Your task to perform on an android device: set an alarm Image 0: 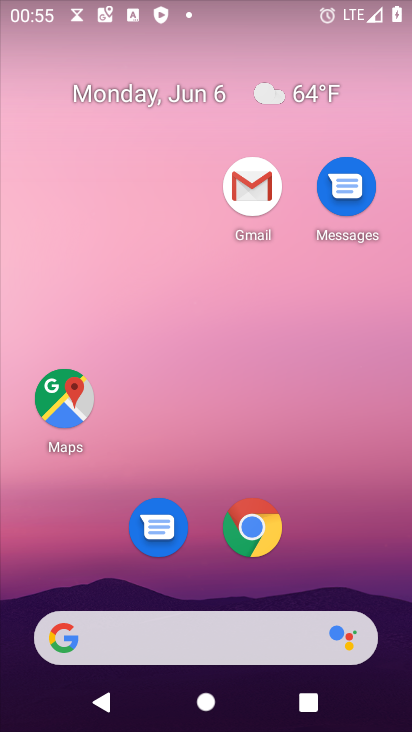
Step 0: drag from (325, 494) to (287, 7)
Your task to perform on an android device: set an alarm Image 1: 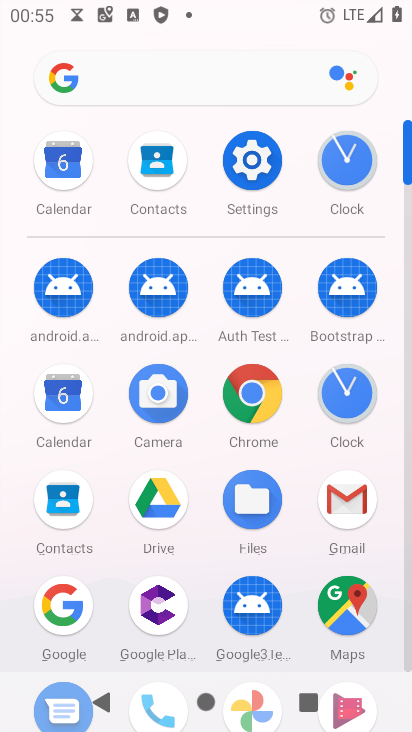
Step 1: click (348, 148)
Your task to perform on an android device: set an alarm Image 2: 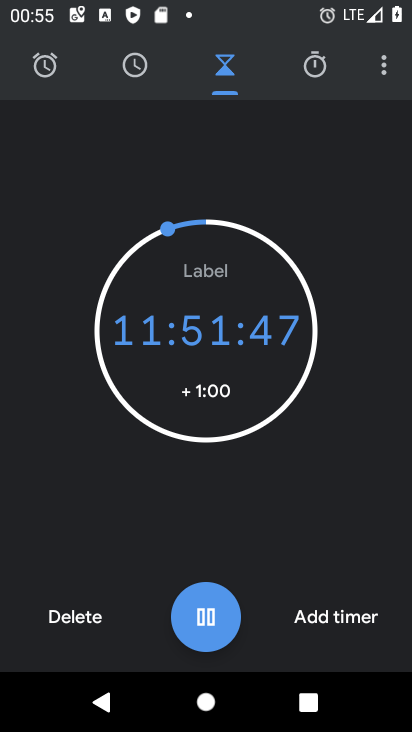
Step 2: click (52, 71)
Your task to perform on an android device: set an alarm Image 3: 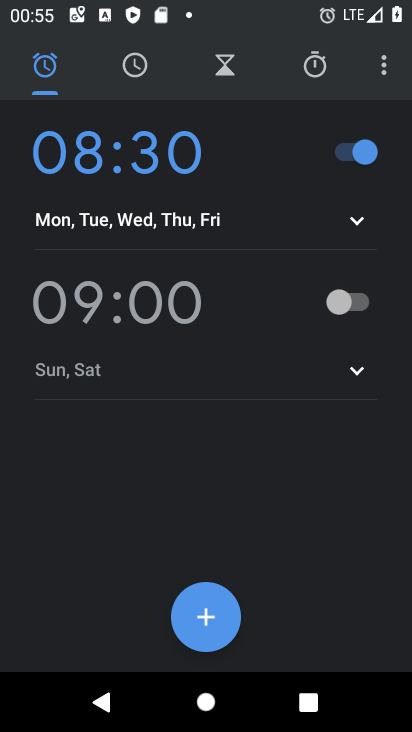
Step 3: click (332, 305)
Your task to perform on an android device: set an alarm Image 4: 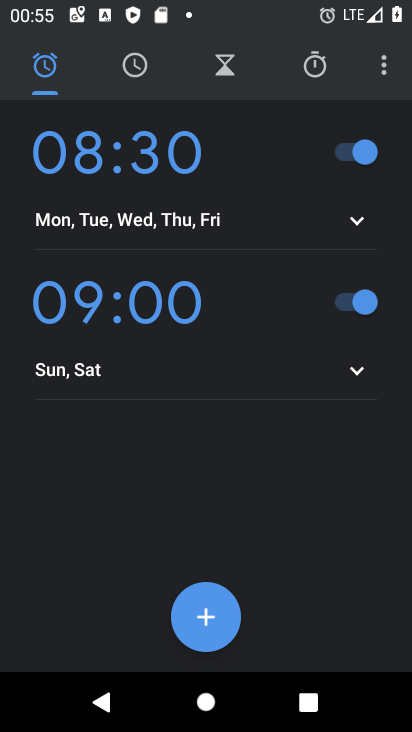
Step 4: task complete